Your task to perform on an android device: Open maps Image 0: 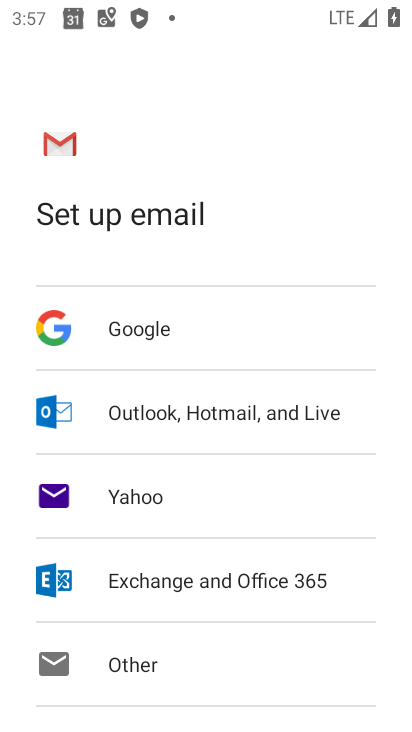
Step 0: press back button
Your task to perform on an android device: Open maps Image 1: 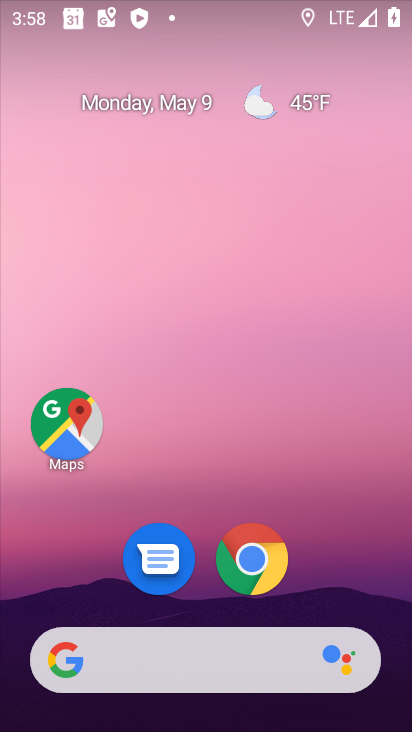
Step 1: drag from (186, 490) to (237, 11)
Your task to perform on an android device: Open maps Image 2: 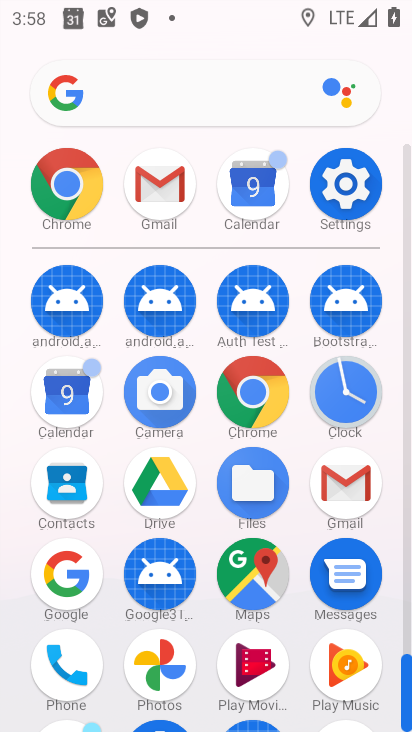
Step 2: drag from (206, 544) to (222, 326)
Your task to perform on an android device: Open maps Image 3: 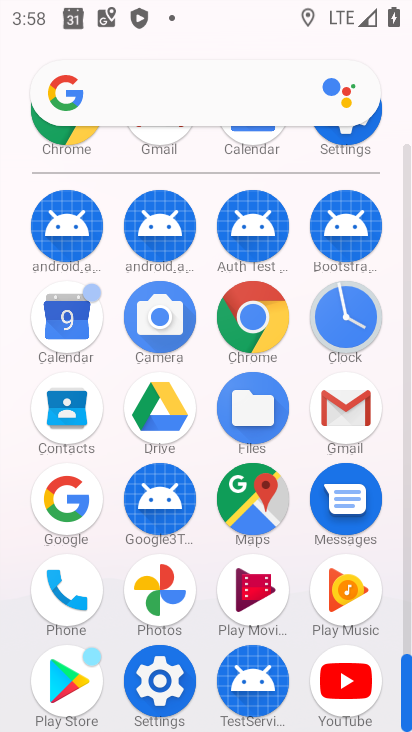
Step 3: click (254, 500)
Your task to perform on an android device: Open maps Image 4: 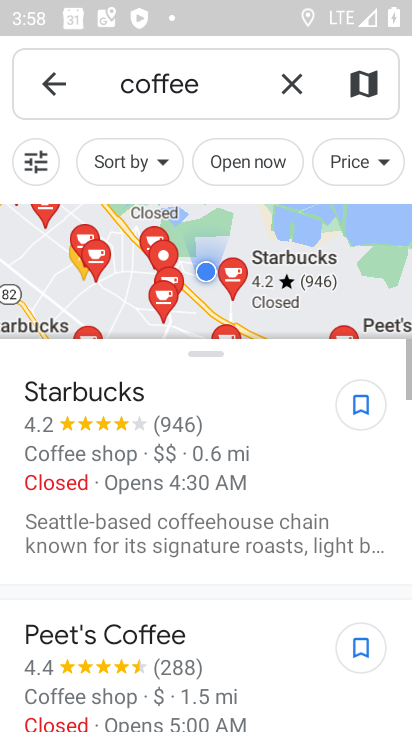
Step 4: click (295, 77)
Your task to perform on an android device: Open maps Image 5: 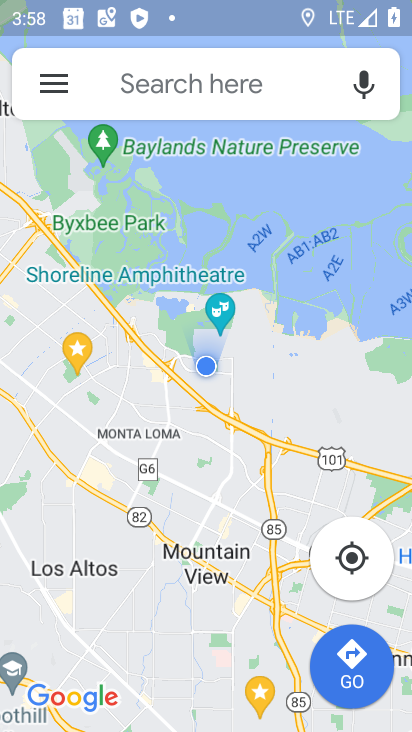
Step 5: task complete